Your task to perform on an android device: stop showing notifications on the lock screen Image 0: 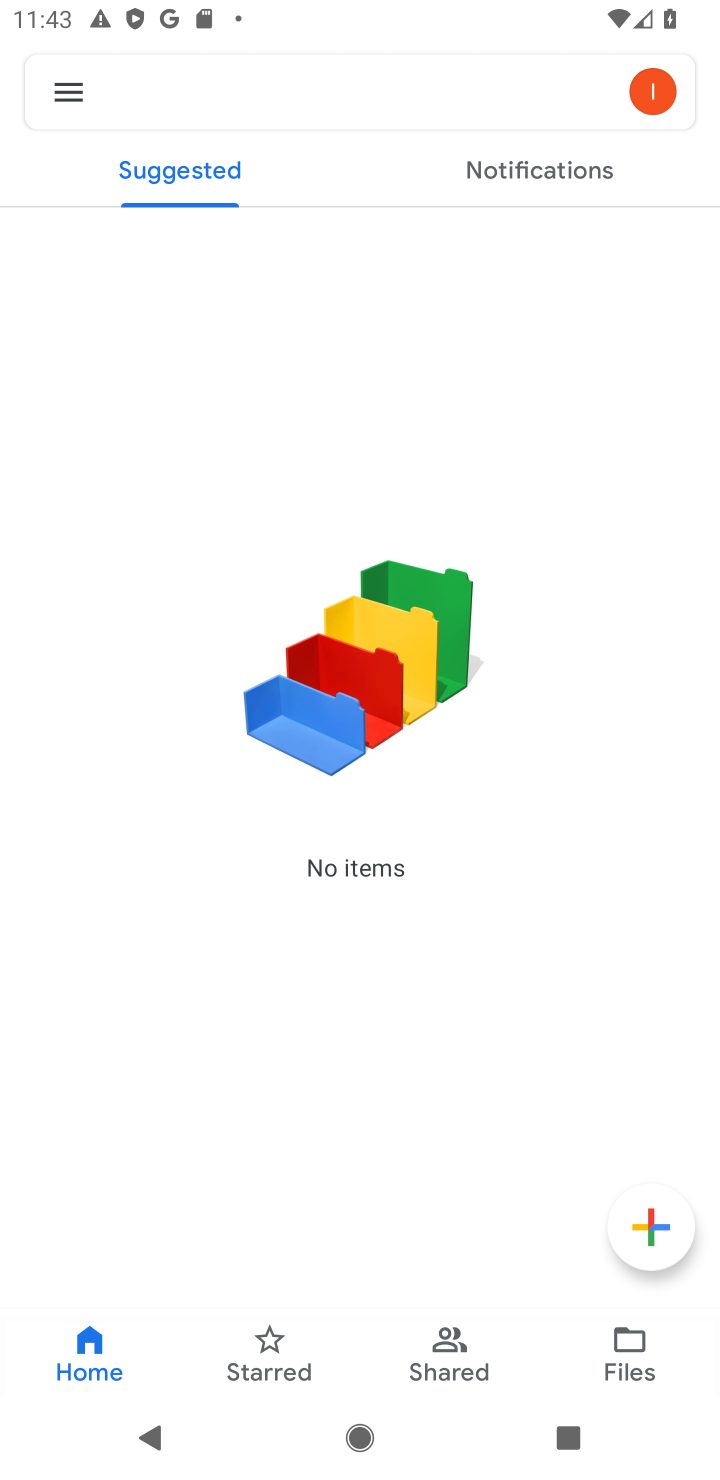
Step 0: press home button
Your task to perform on an android device: stop showing notifications on the lock screen Image 1: 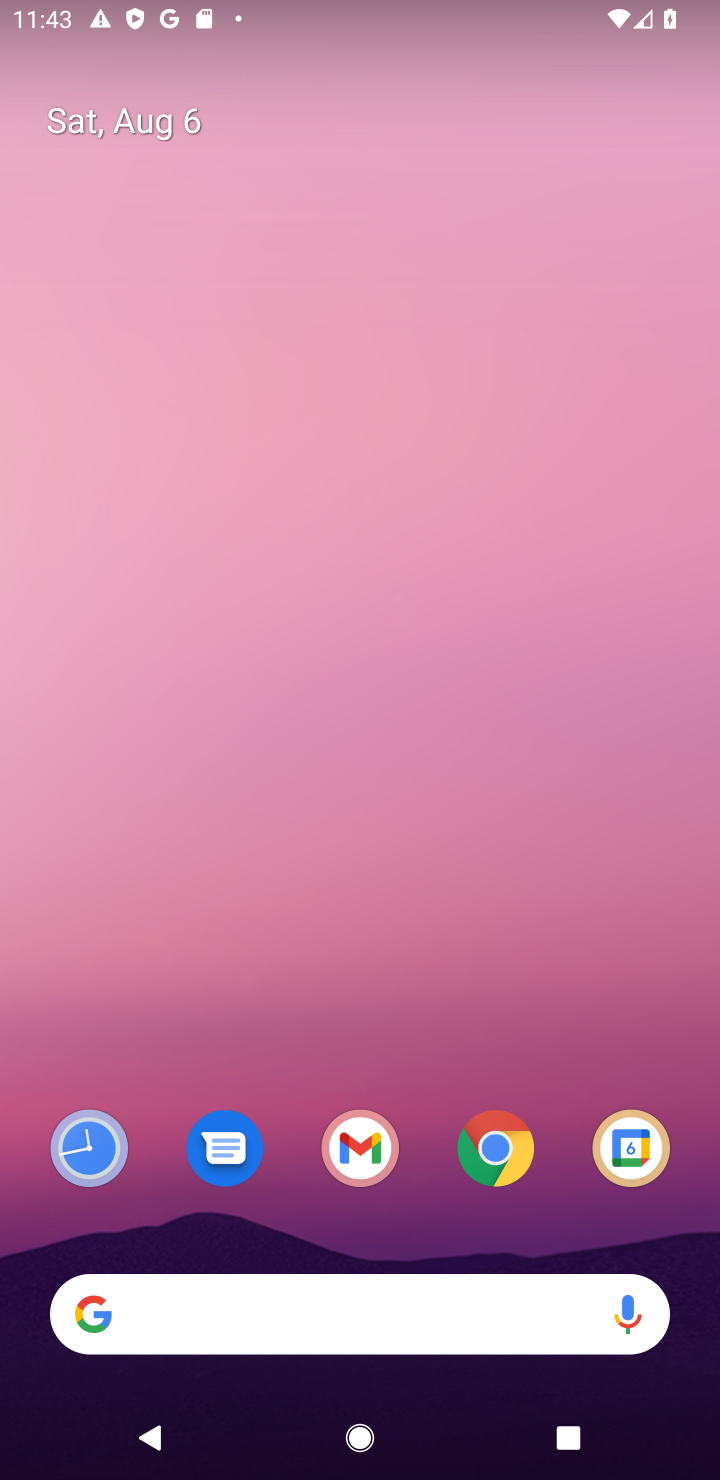
Step 1: drag from (379, 505) to (379, 10)
Your task to perform on an android device: stop showing notifications on the lock screen Image 2: 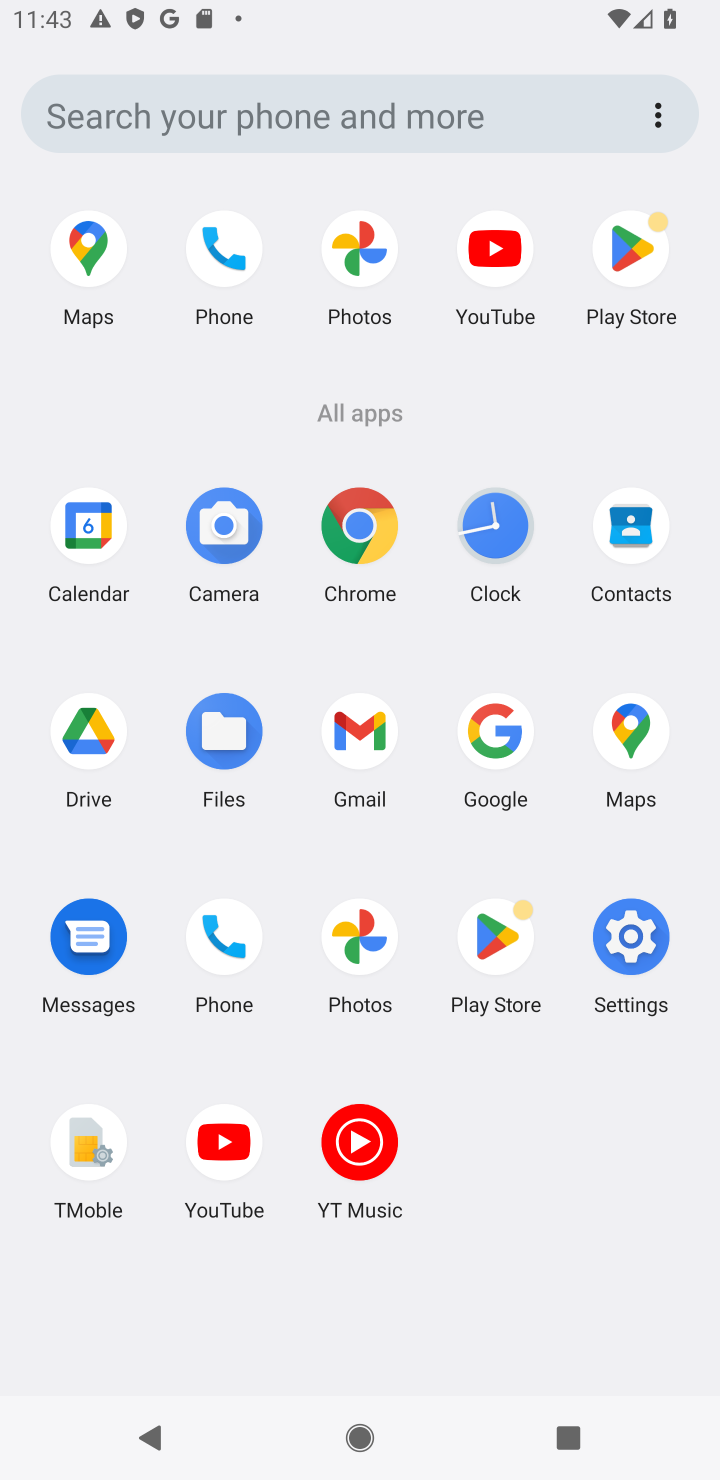
Step 2: click (628, 931)
Your task to perform on an android device: stop showing notifications on the lock screen Image 3: 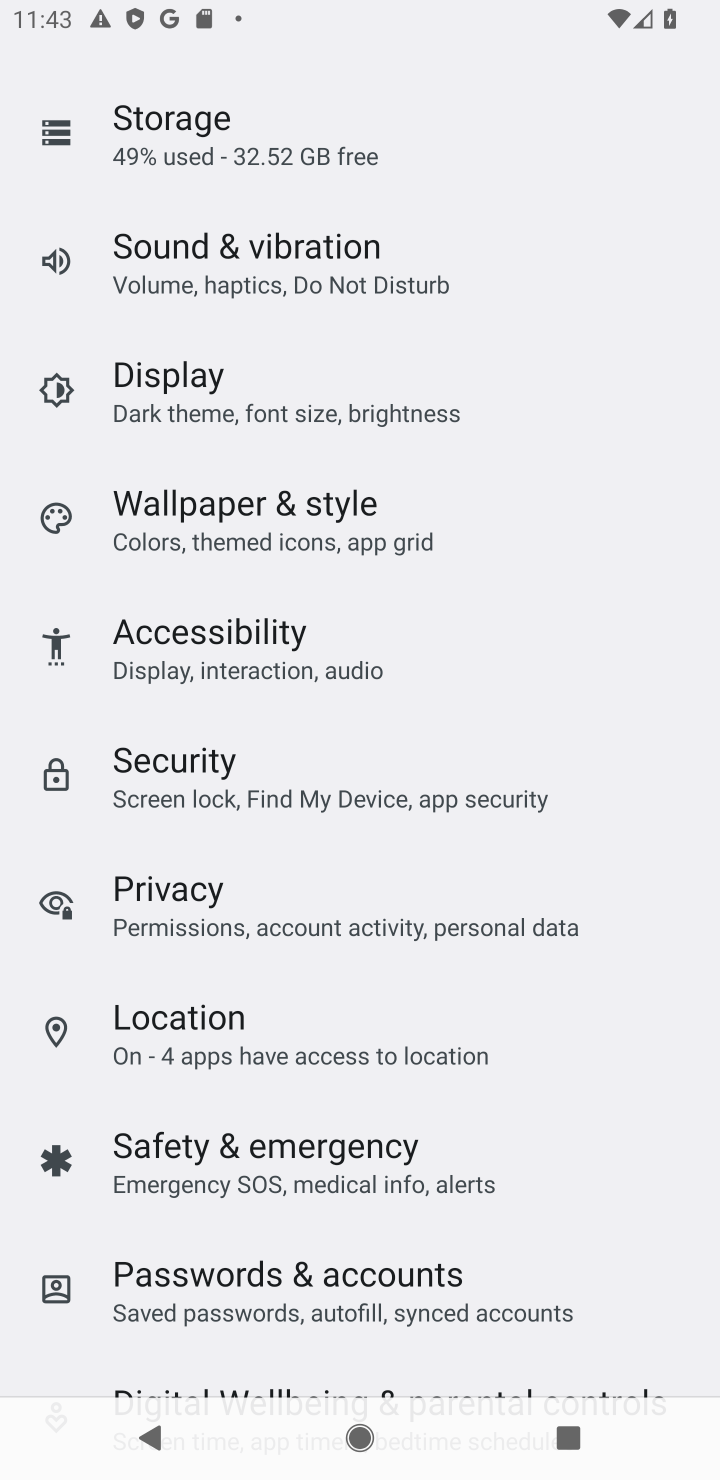
Step 3: drag from (474, 252) to (487, 1150)
Your task to perform on an android device: stop showing notifications on the lock screen Image 4: 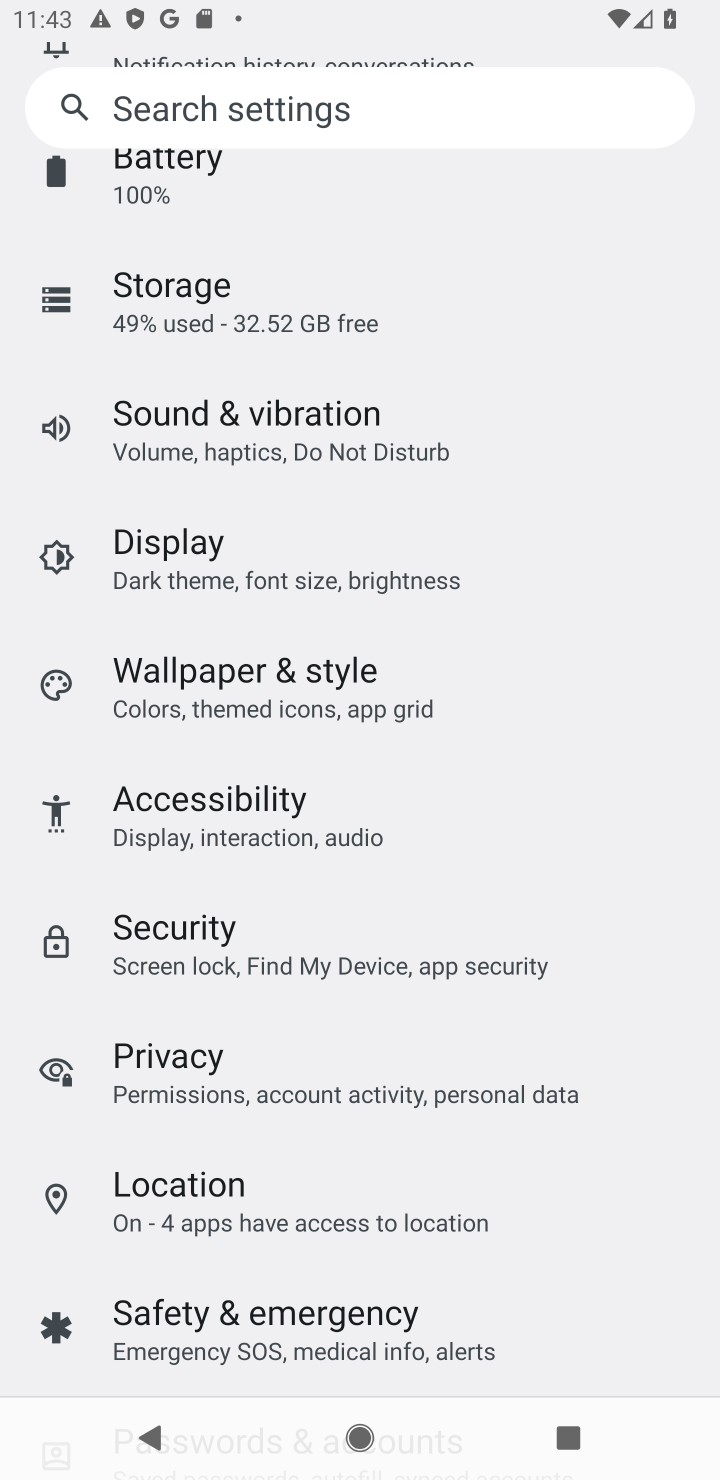
Step 4: drag from (395, 274) to (412, 1445)
Your task to perform on an android device: stop showing notifications on the lock screen Image 5: 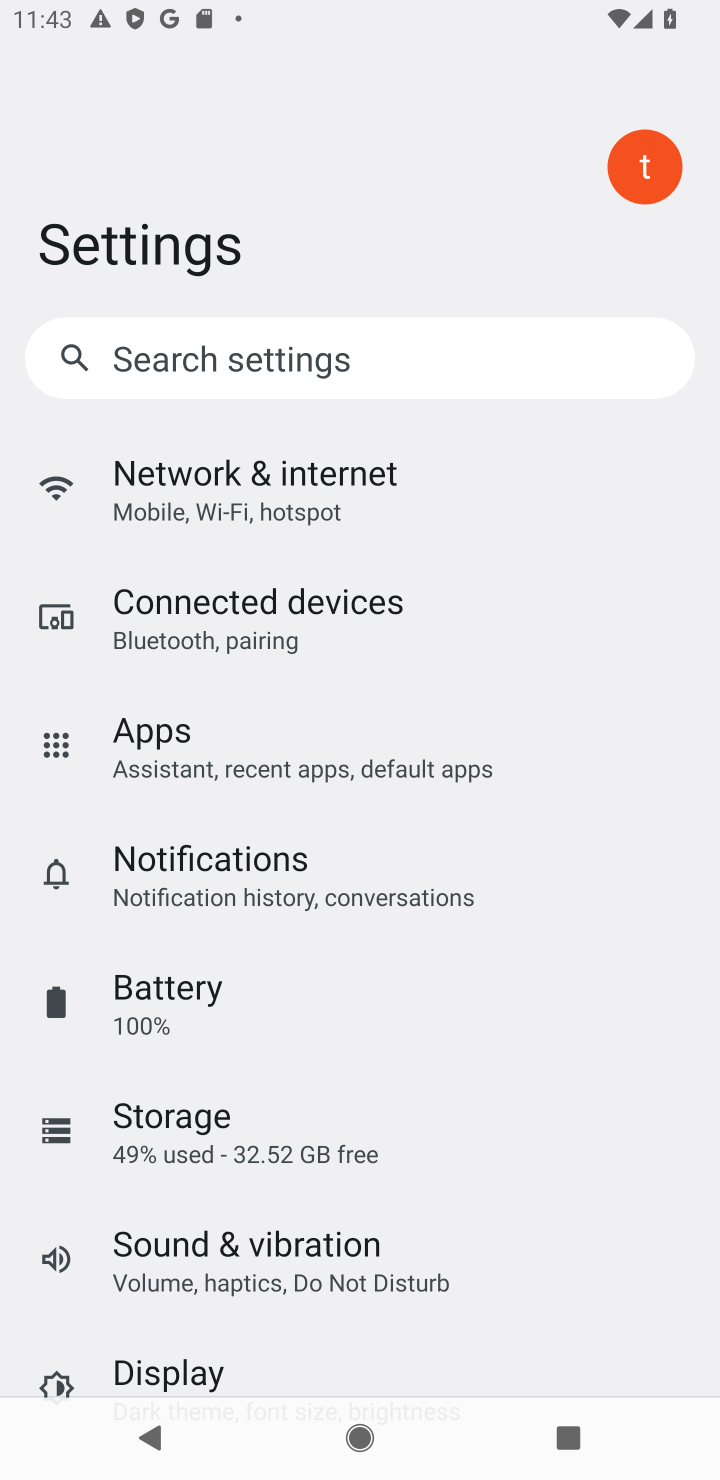
Step 5: click (248, 856)
Your task to perform on an android device: stop showing notifications on the lock screen Image 6: 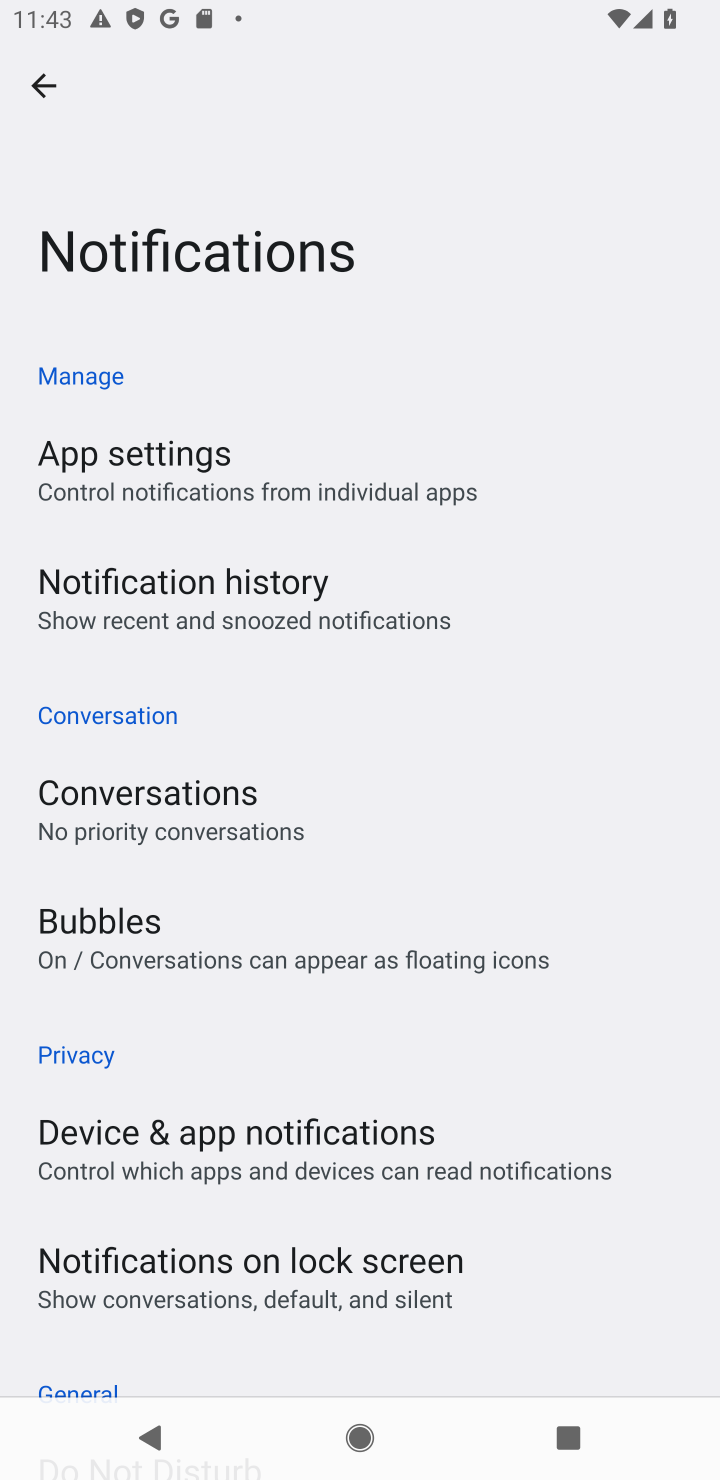
Step 6: click (270, 1251)
Your task to perform on an android device: stop showing notifications on the lock screen Image 7: 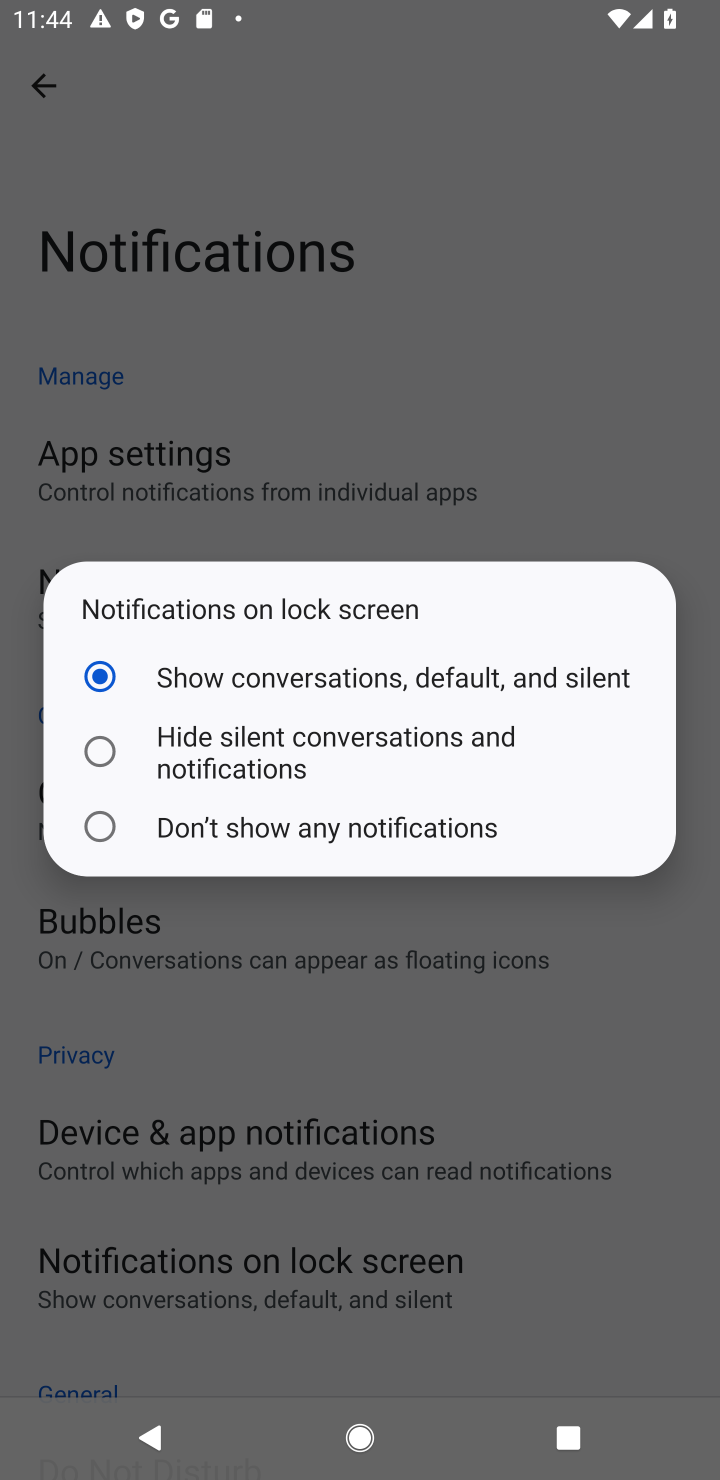
Step 7: click (99, 819)
Your task to perform on an android device: stop showing notifications on the lock screen Image 8: 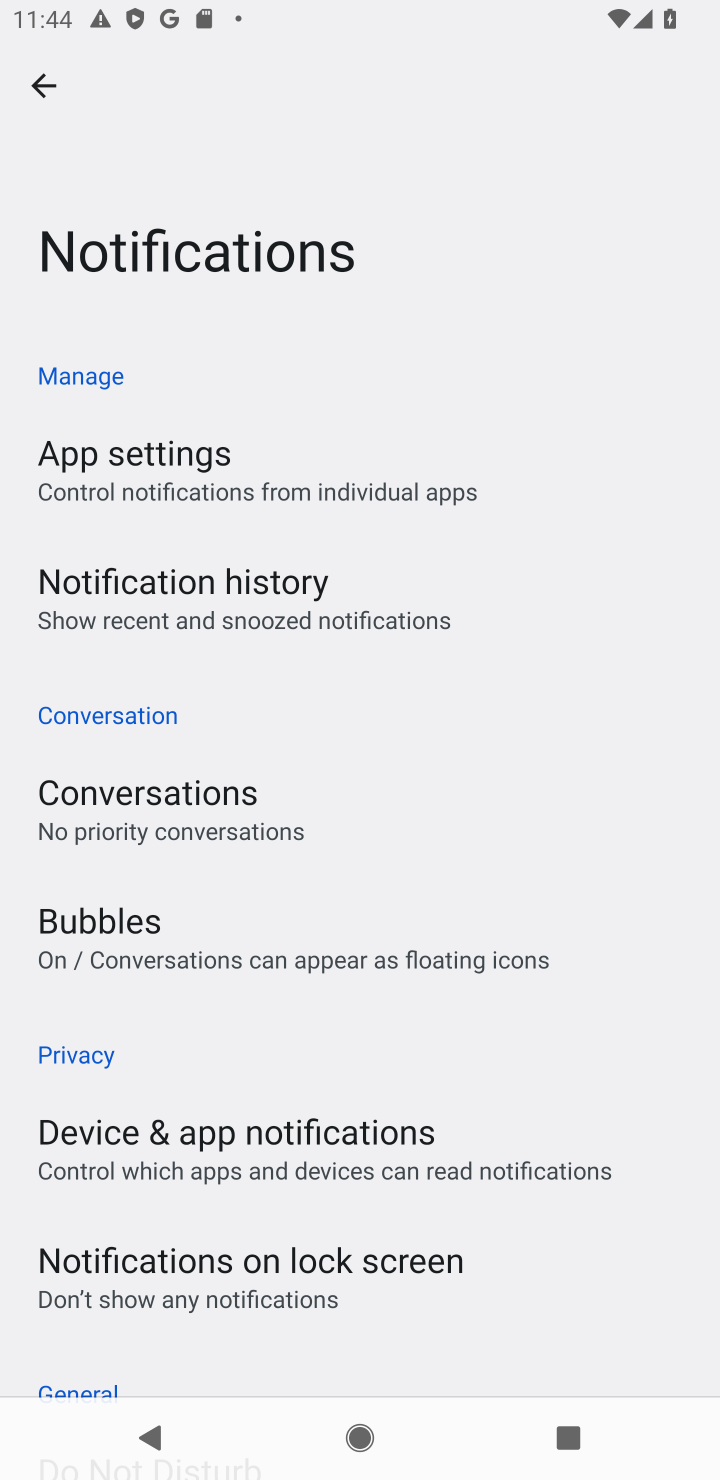
Step 8: task complete